Your task to perform on an android device: Go to ESPN.com Image 0: 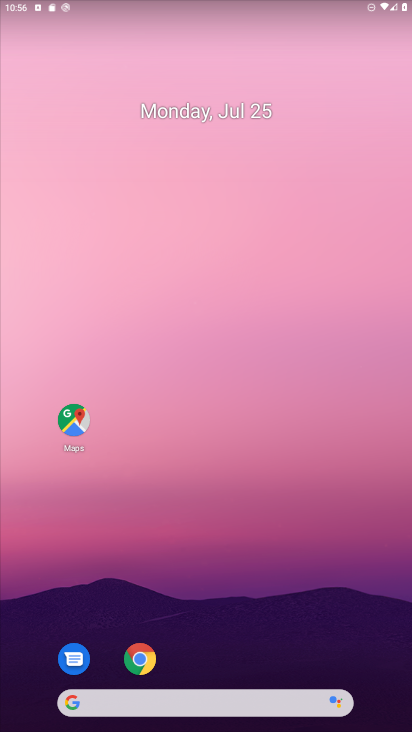
Step 0: click (156, 651)
Your task to perform on an android device: Go to ESPN.com Image 1: 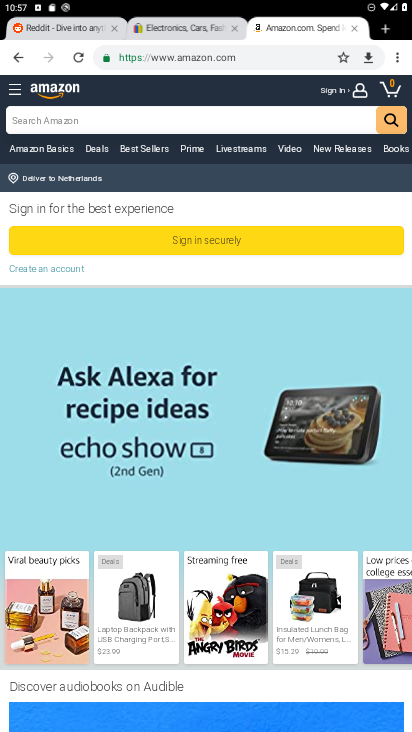
Step 1: click (381, 27)
Your task to perform on an android device: Go to ESPN.com Image 2: 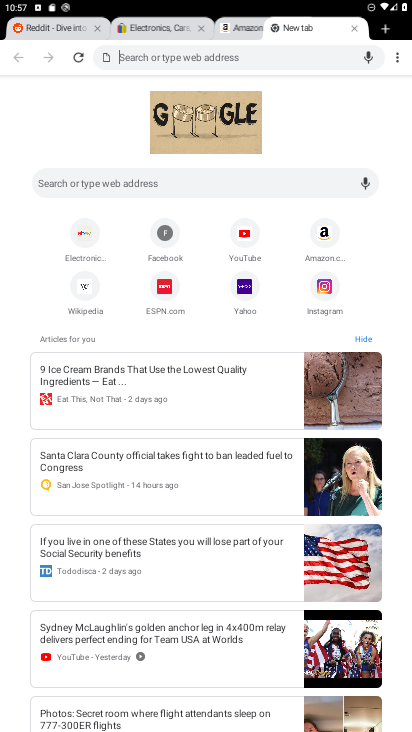
Step 2: click (177, 296)
Your task to perform on an android device: Go to ESPN.com Image 3: 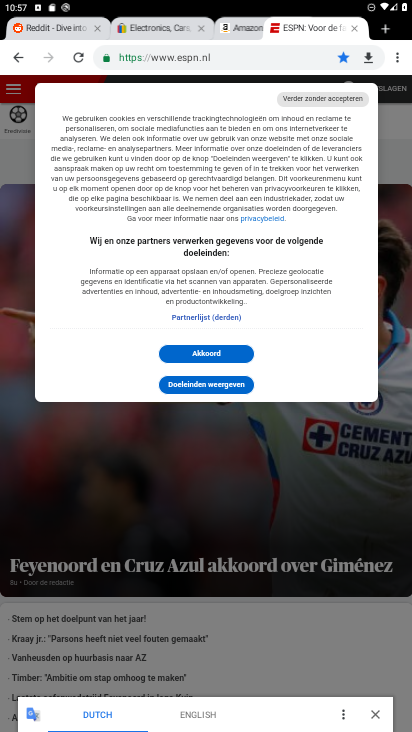
Step 3: task complete